Your task to perform on an android device: toggle javascript in the chrome app Image 0: 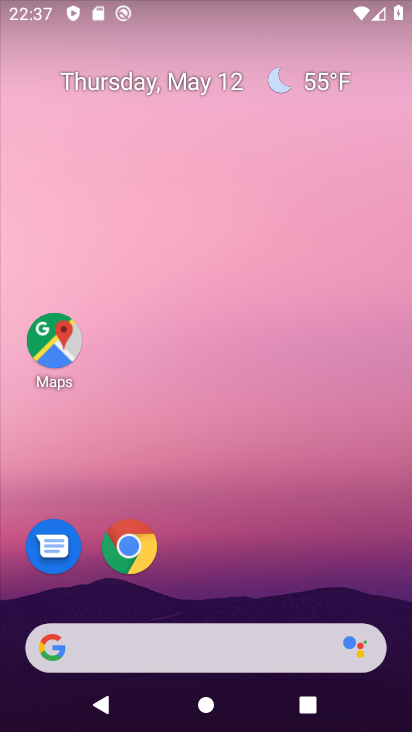
Step 0: click (134, 552)
Your task to perform on an android device: toggle javascript in the chrome app Image 1: 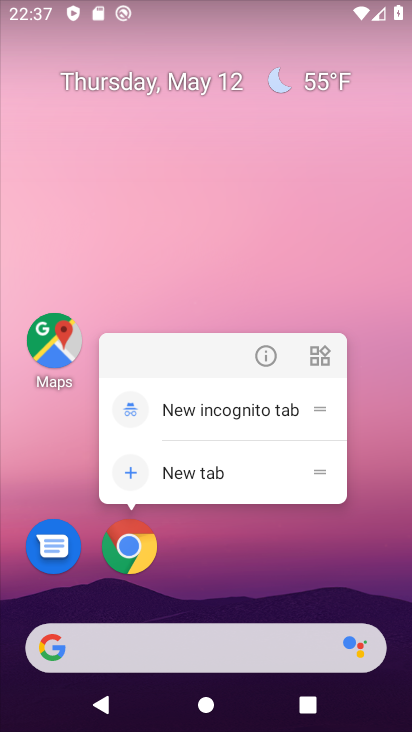
Step 1: click (125, 545)
Your task to perform on an android device: toggle javascript in the chrome app Image 2: 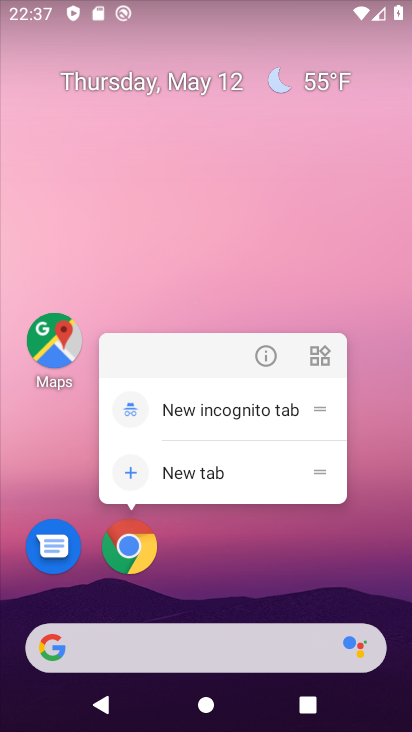
Step 2: click (134, 547)
Your task to perform on an android device: toggle javascript in the chrome app Image 3: 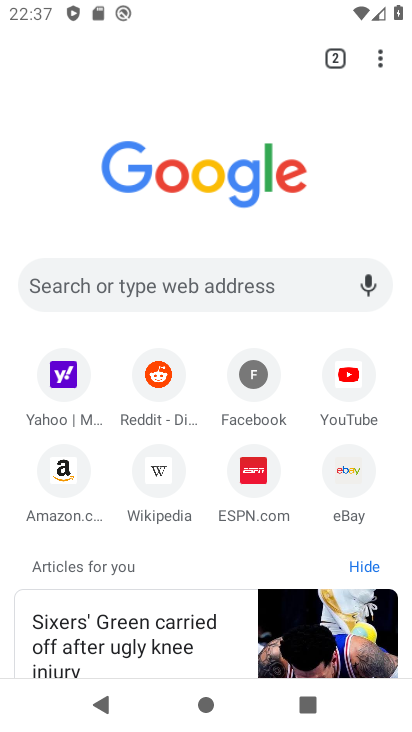
Step 3: click (386, 59)
Your task to perform on an android device: toggle javascript in the chrome app Image 4: 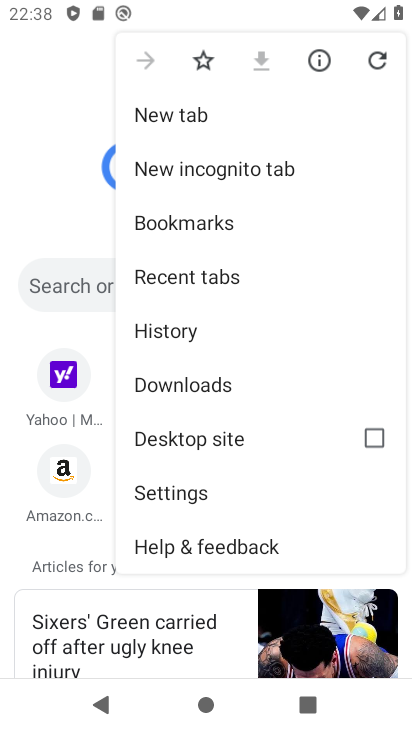
Step 4: click (191, 497)
Your task to perform on an android device: toggle javascript in the chrome app Image 5: 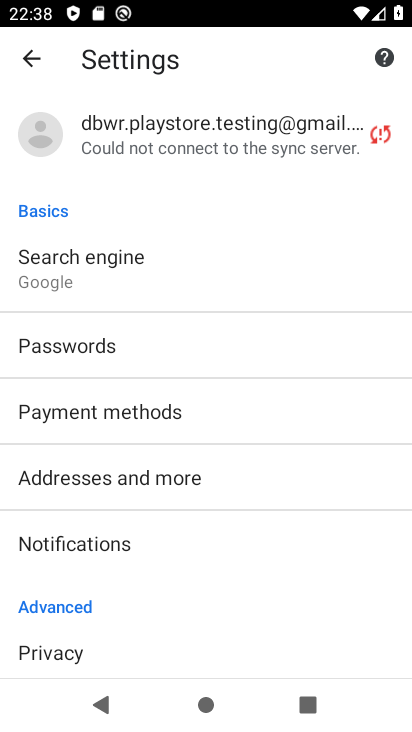
Step 5: drag from (93, 581) to (142, 178)
Your task to perform on an android device: toggle javascript in the chrome app Image 6: 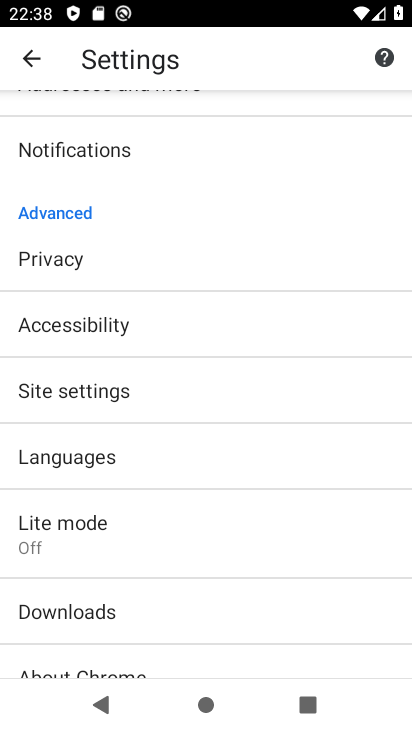
Step 6: click (83, 381)
Your task to perform on an android device: toggle javascript in the chrome app Image 7: 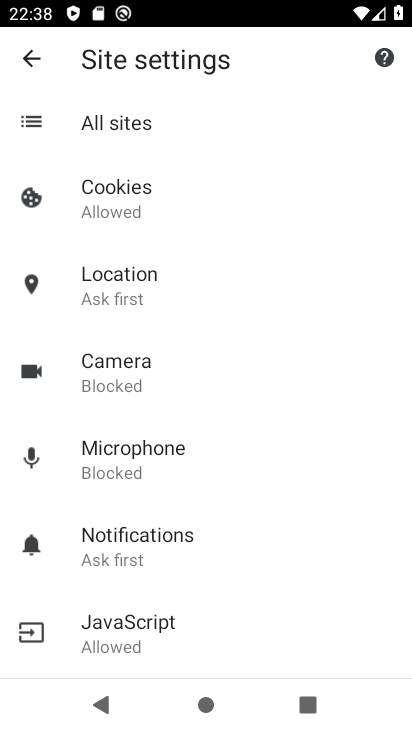
Step 7: click (127, 627)
Your task to perform on an android device: toggle javascript in the chrome app Image 8: 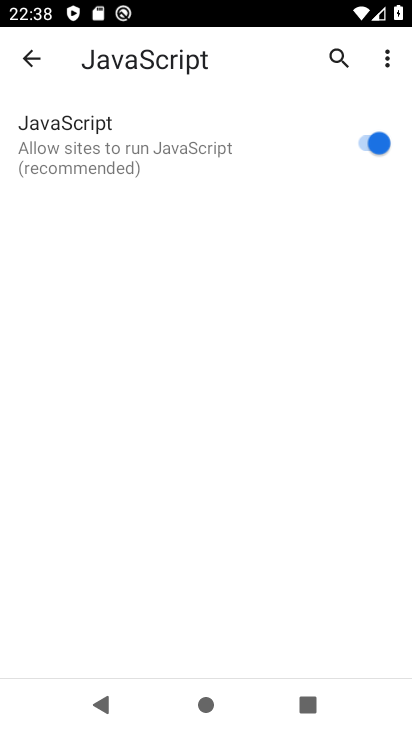
Step 8: click (360, 146)
Your task to perform on an android device: toggle javascript in the chrome app Image 9: 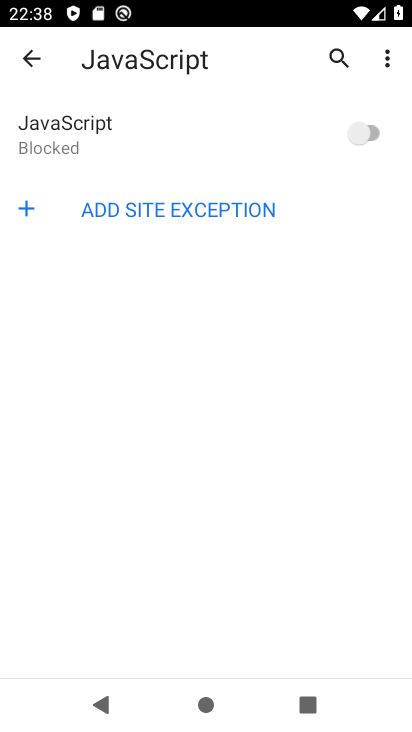
Step 9: task complete